Your task to perform on an android device: open a bookmark in the chrome app Image 0: 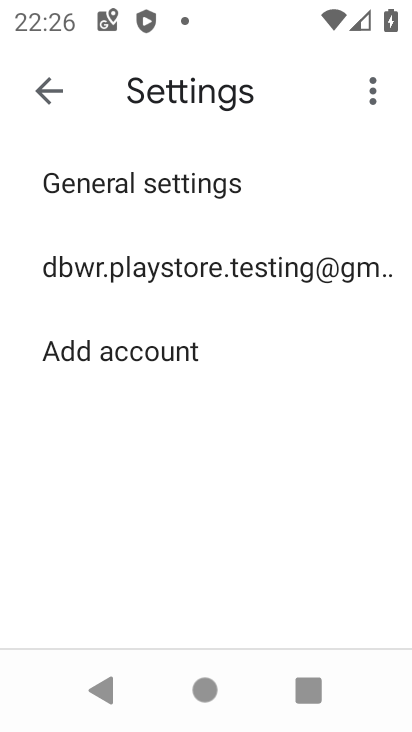
Step 0: press home button
Your task to perform on an android device: open a bookmark in the chrome app Image 1: 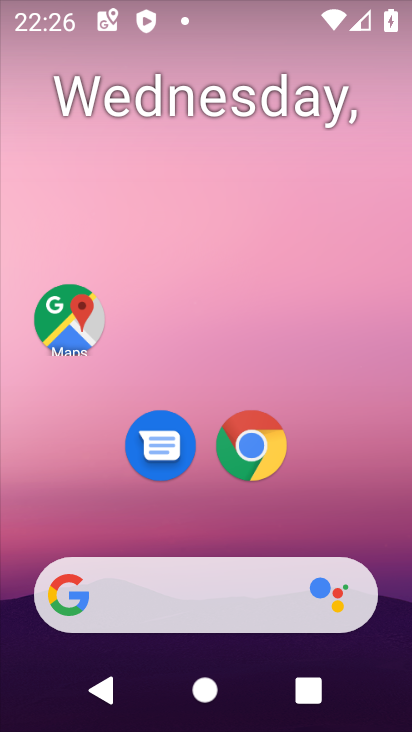
Step 1: click (239, 435)
Your task to perform on an android device: open a bookmark in the chrome app Image 2: 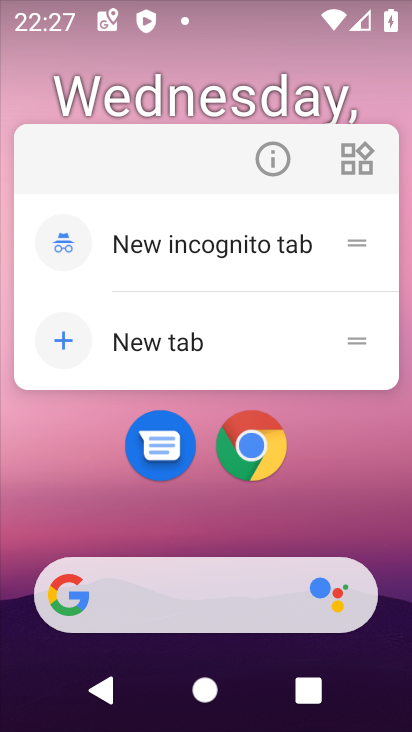
Step 2: click (239, 429)
Your task to perform on an android device: open a bookmark in the chrome app Image 3: 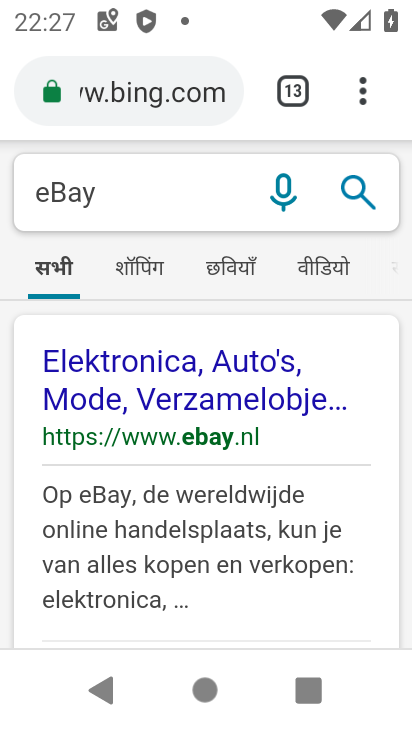
Step 3: click (369, 83)
Your task to perform on an android device: open a bookmark in the chrome app Image 4: 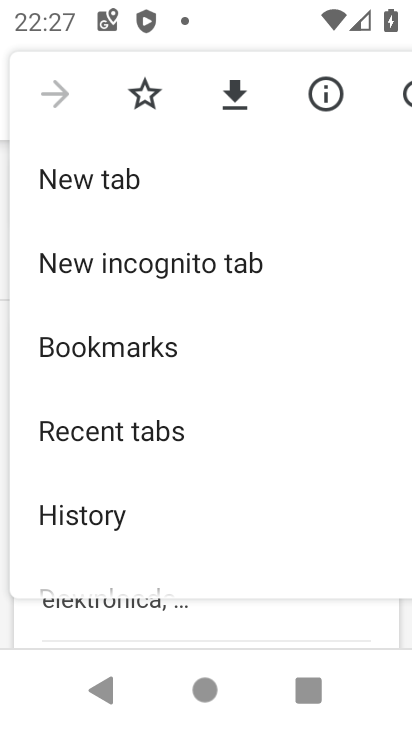
Step 4: click (152, 333)
Your task to perform on an android device: open a bookmark in the chrome app Image 5: 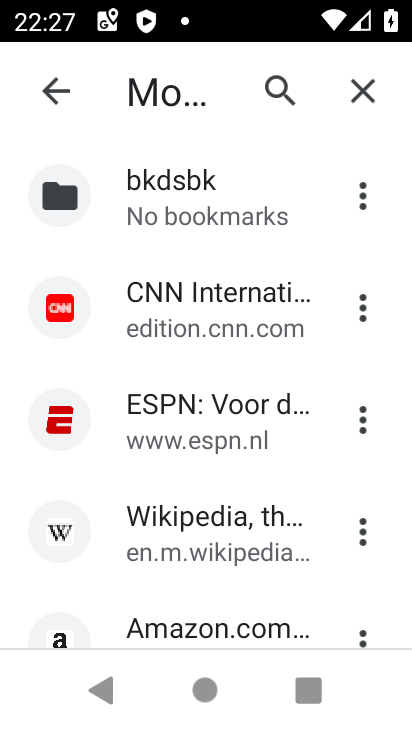
Step 5: task complete